Your task to perform on an android device: Do I have any events this weekend? Image 0: 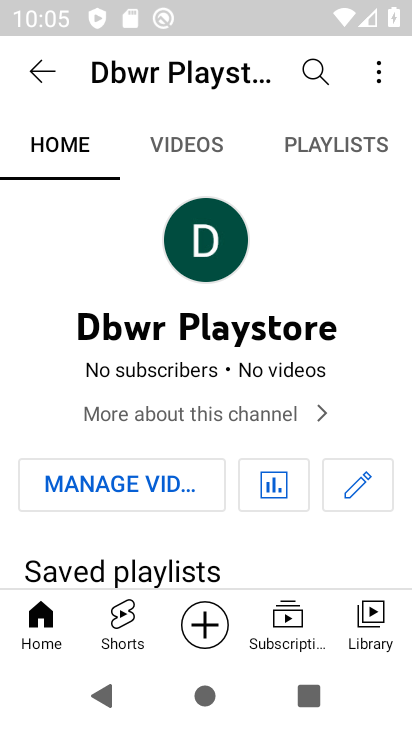
Step 0: press home button
Your task to perform on an android device: Do I have any events this weekend? Image 1: 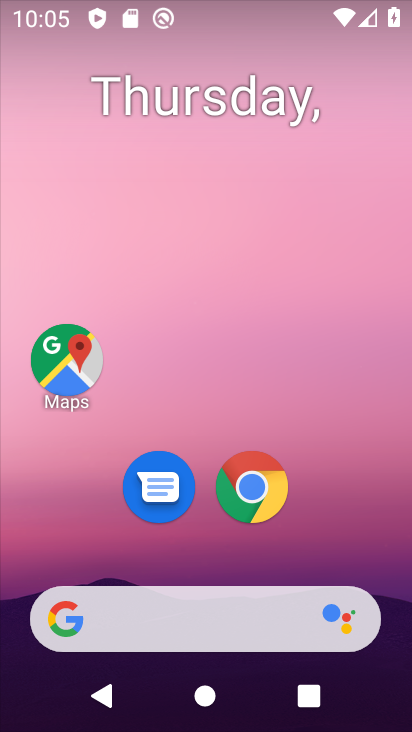
Step 1: drag from (315, 551) to (170, 214)
Your task to perform on an android device: Do I have any events this weekend? Image 2: 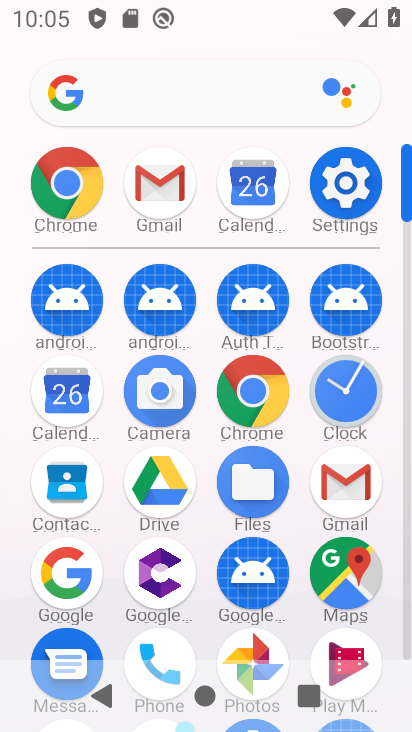
Step 2: click (76, 401)
Your task to perform on an android device: Do I have any events this weekend? Image 3: 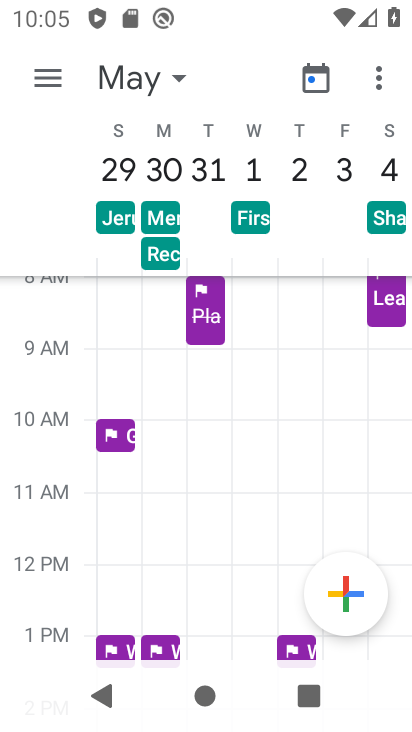
Step 3: click (117, 78)
Your task to perform on an android device: Do I have any events this weekend? Image 4: 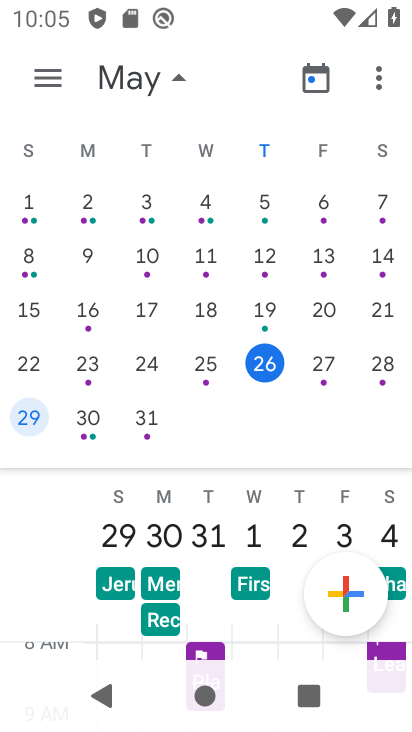
Step 4: click (385, 373)
Your task to perform on an android device: Do I have any events this weekend? Image 5: 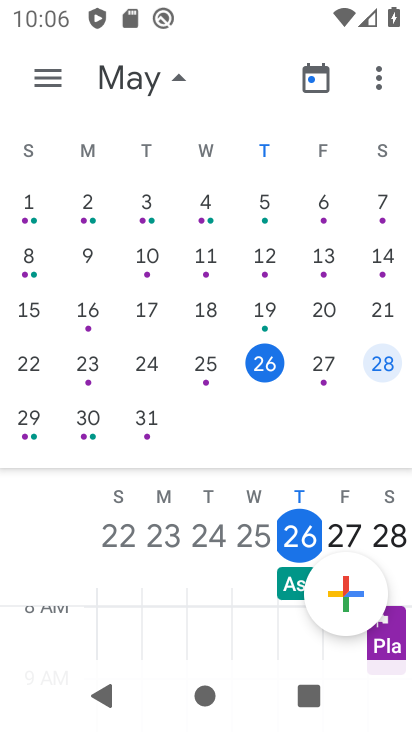
Step 5: click (57, 80)
Your task to perform on an android device: Do I have any events this weekend? Image 6: 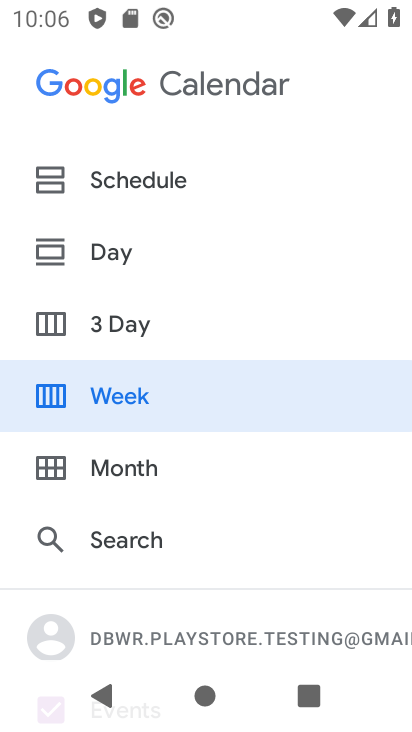
Step 6: click (67, 174)
Your task to perform on an android device: Do I have any events this weekend? Image 7: 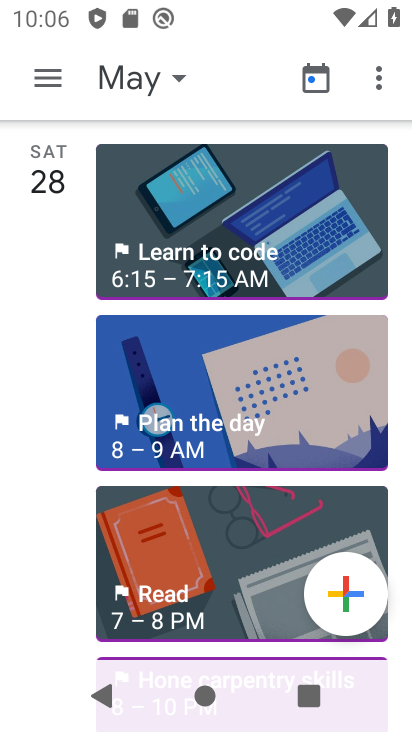
Step 7: task complete